Your task to perform on an android device: Open network settings Image 0: 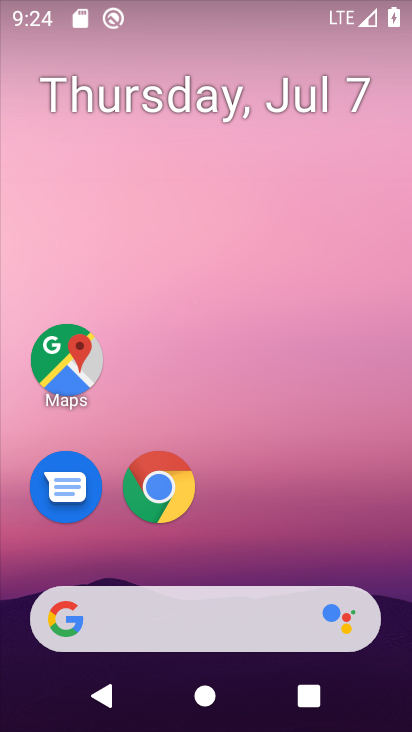
Step 0: drag from (346, 558) to (351, 249)
Your task to perform on an android device: Open network settings Image 1: 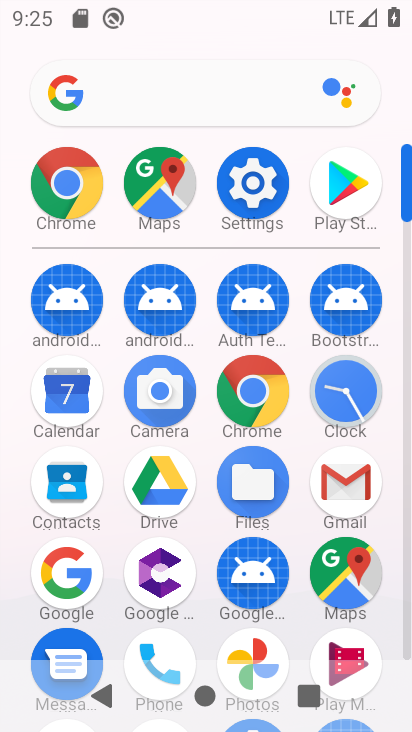
Step 1: click (253, 195)
Your task to perform on an android device: Open network settings Image 2: 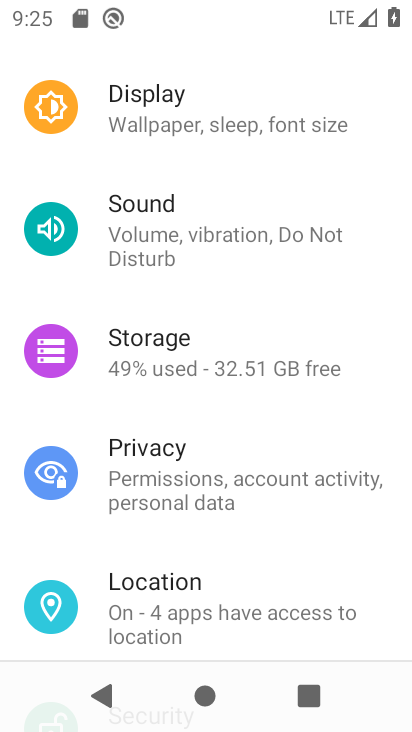
Step 2: drag from (349, 186) to (359, 248)
Your task to perform on an android device: Open network settings Image 3: 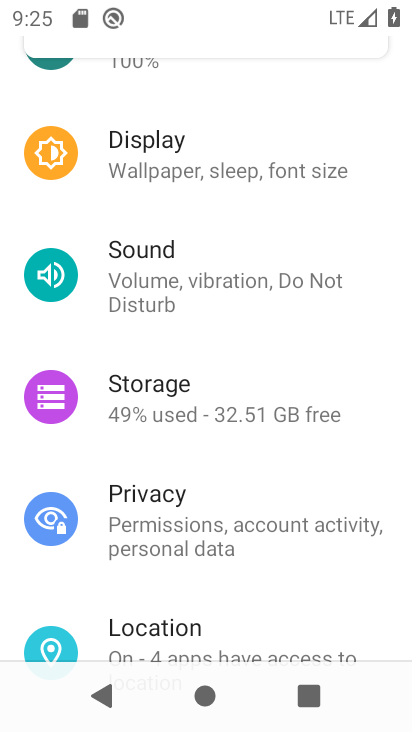
Step 3: drag from (378, 182) to (380, 238)
Your task to perform on an android device: Open network settings Image 4: 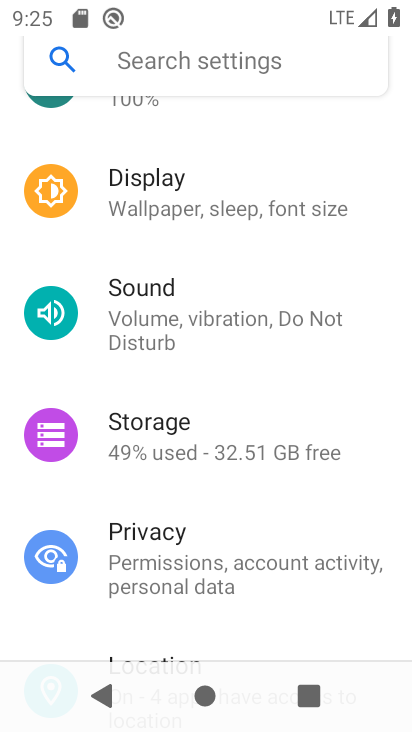
Step 4: drag from (380, 190) to (381, 256)
Your task to perform on an android device: Open network settings Image 5: 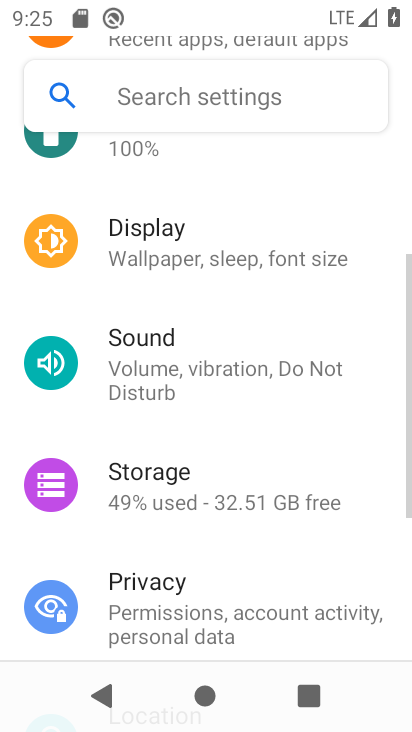
Step 5: drag from (365, 192) to (372, 289)
Your task to perform on an android device: Open network settings Image 6: 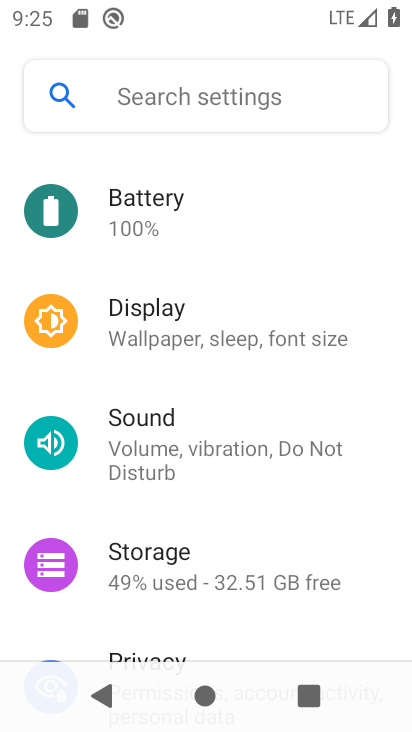
Step 6: drag from (356, 195) to (358, 294)
Your task to perform on an android device: Open network settings Image 7: 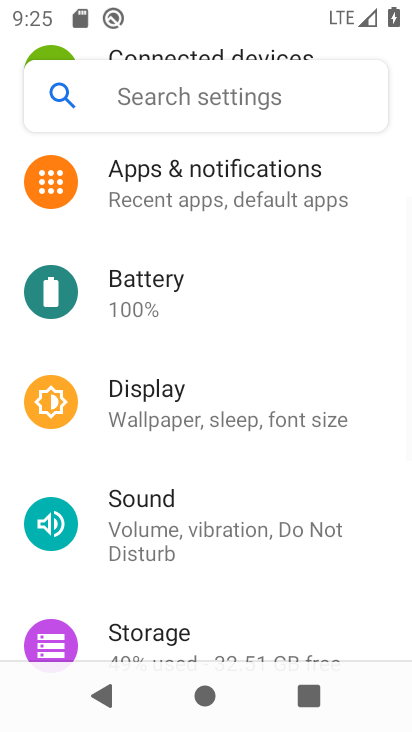
Step 7: drag from (357, 171) to (357, 309)
Your task to perform on an android device: Open network settings Image 8: 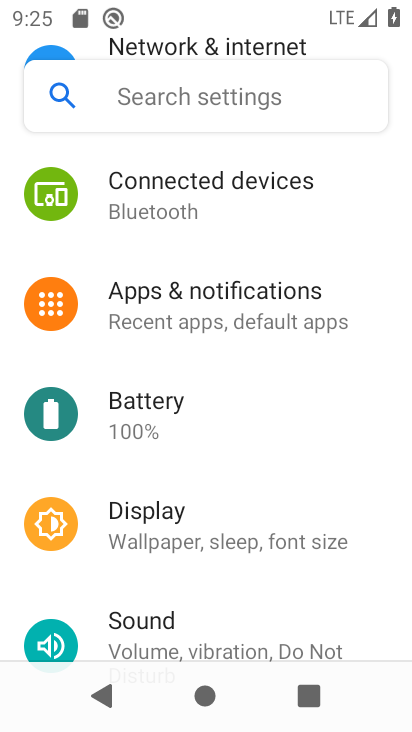
Step 8: drag from (347, 203) to (352, 331)
Your task to perform on an android device: Open network settings Image 9: 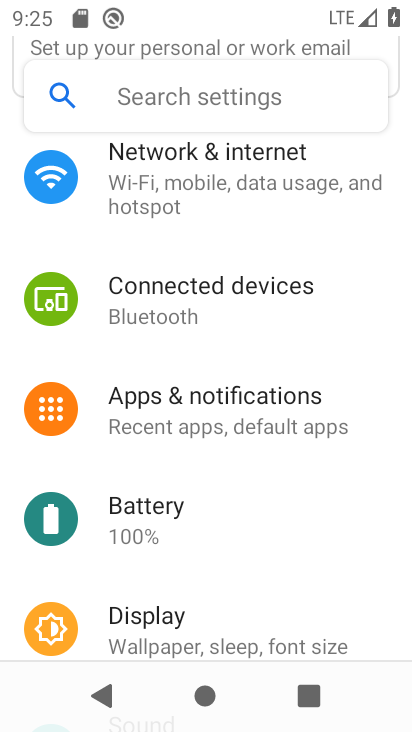
Step 9: drag from (353, 250) to (364, 385)
Your task to perform on an android device: Open network settings Image 10: 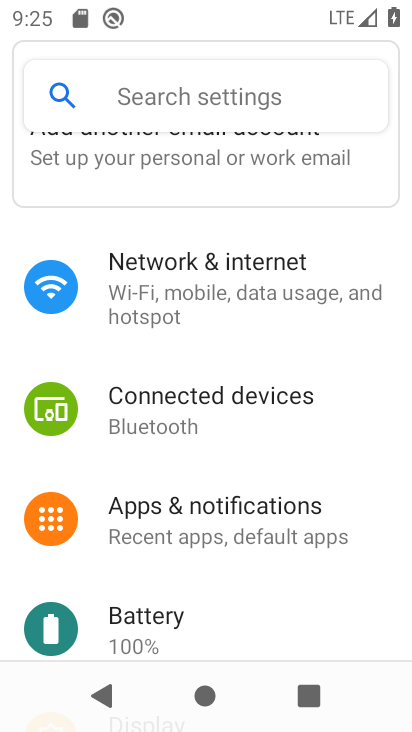
Step 10: drag from (360, 238) to (373, 450)
Your task to perform on an android device: Open network settings Image 11: 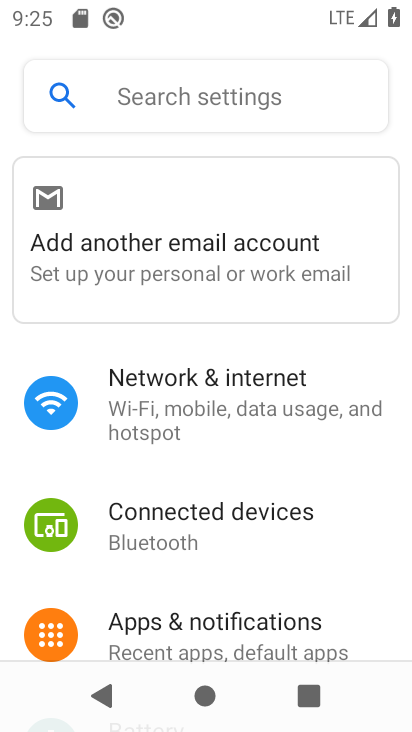
Step 11: click (302, 401)
Your task to perform on an android device: Open network settings Image 12: 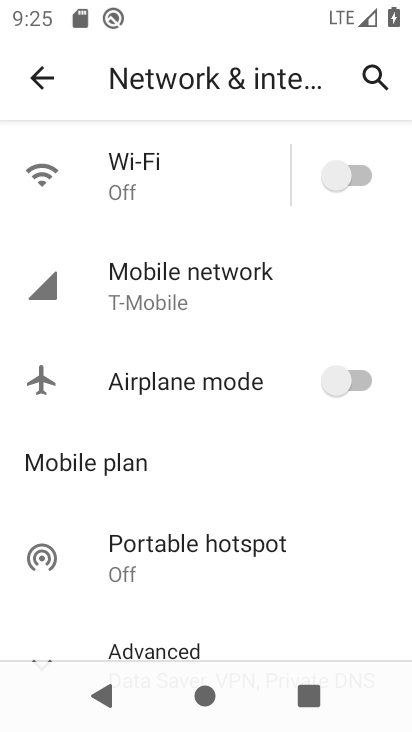
Step 12: task complete